Your task to perform on an android device: Go to notification settings Image 0: 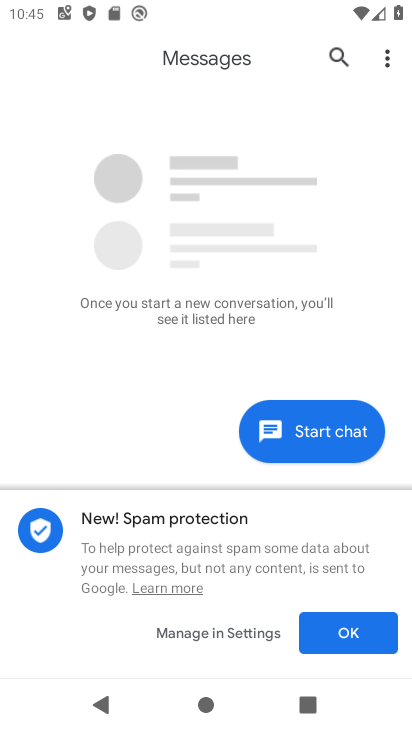
Step 0: press home button
Your task to perform on an android device: Go to notification settings Image 1: 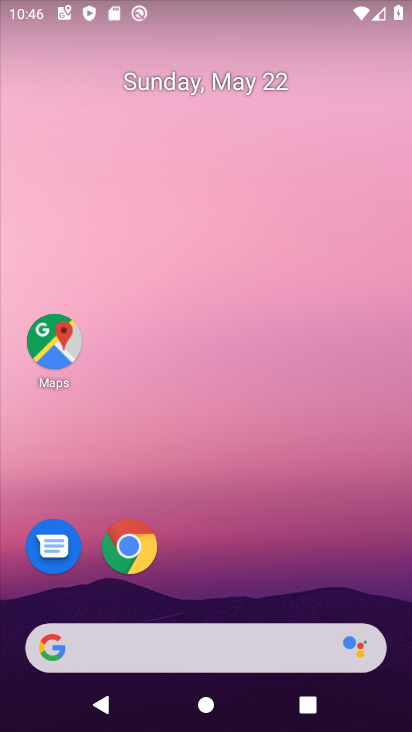
Step 1: drag from (221, 597) to (169, 1)
Your task to perform on an android device: Go to notification settings Image 2: 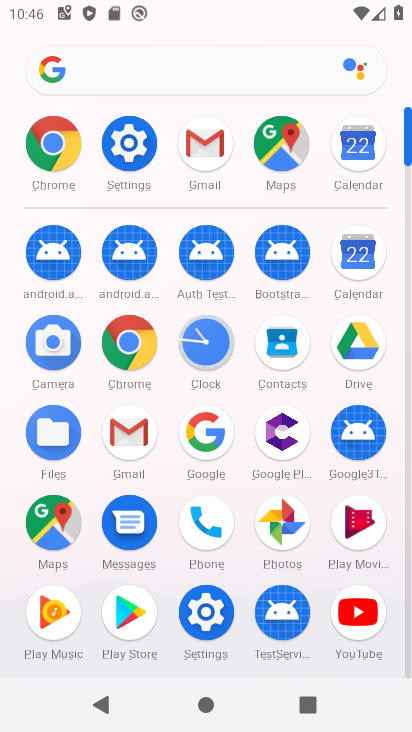
Step 2: click (207, 615)
Your task to perform on an android device: Go to notification settings Image 3: 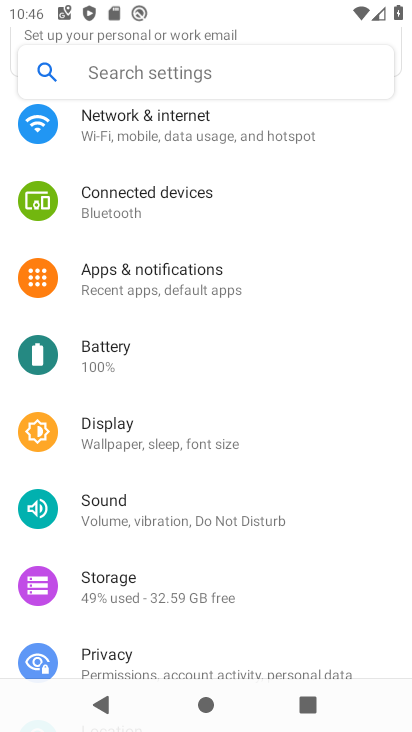
Step 3: click (165, 285)
Your task to perform on an android device: Go to notification settings Image 4: 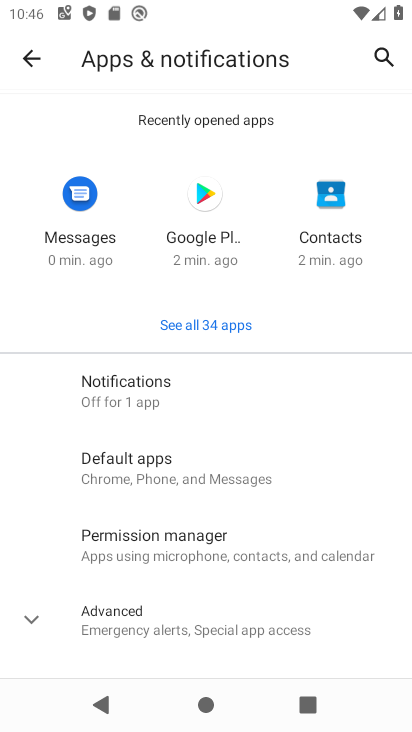
Step 4: click (167, 398)
Your task to perform on an android device: Go to notification settings Image 5: 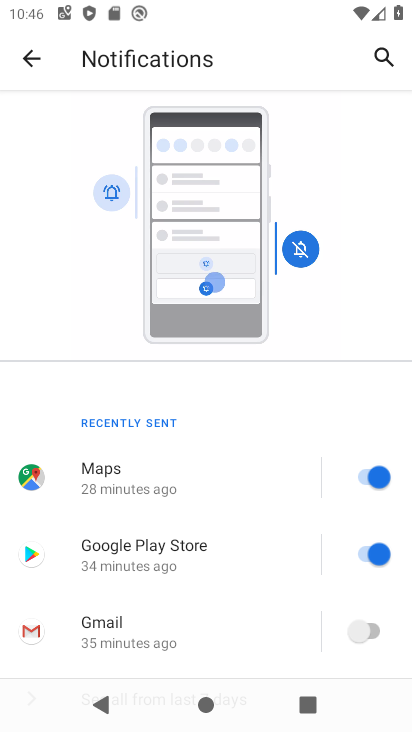
Step 5: task complete